Your task to perform on an android device: allow cookies in the chrome app Image 0: 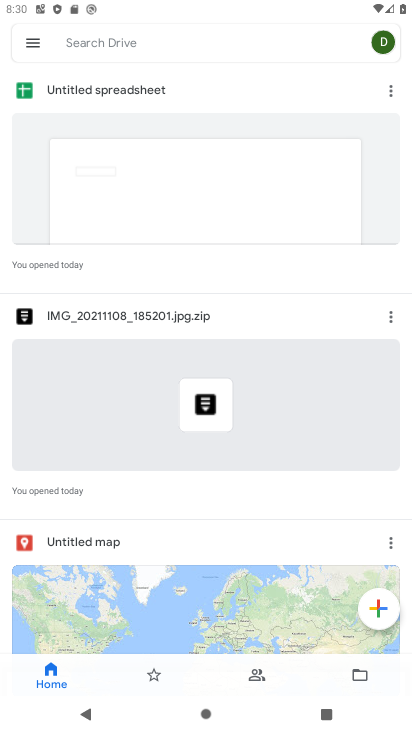
Step 0: press home button
Your task to perform on an android device: allow cookies in the chrome app Image 1: 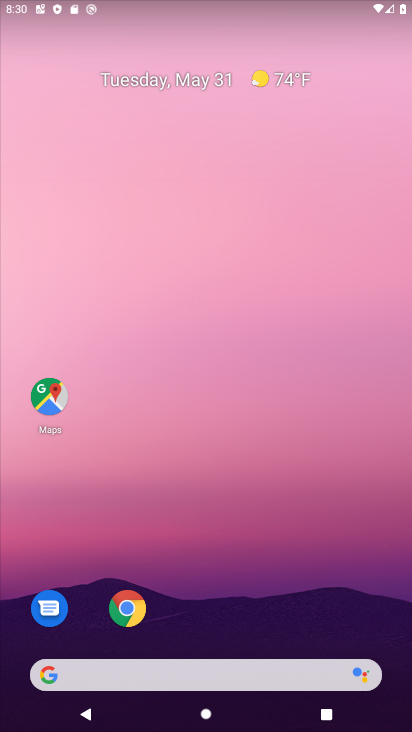
Step 1: click (114, 598)
Your task to perform on an android device: allow cookies in the chrome app Image 2: 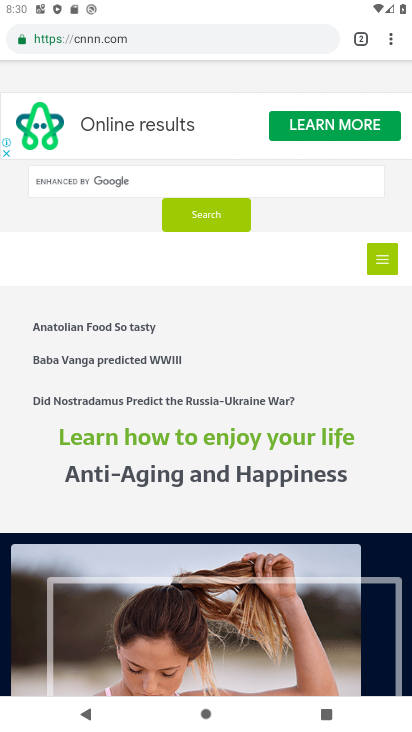
Step 2: click (393, 47)
Your task to perform on an android device: allow cookies in the chrome app Image 3: 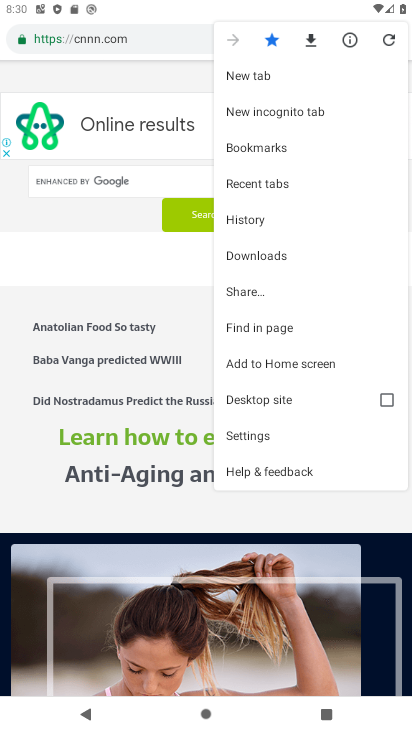
Step 3: click (243, 421)
Your task to perform on an android device: allow cookies in the chrome app Image 4: 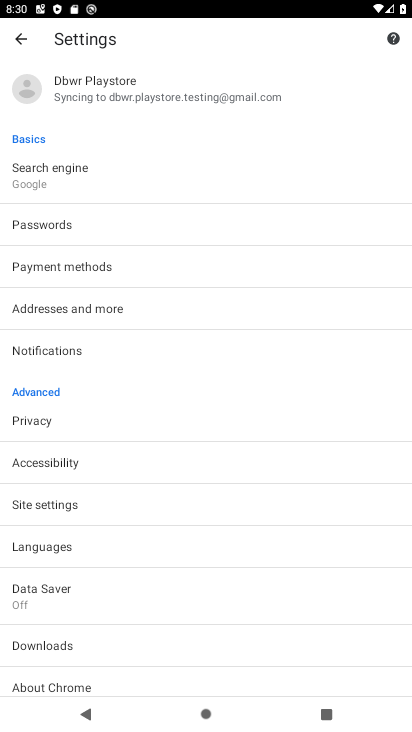
Step 4: click (48, 513)
Your task to perform on an android device: allow cookies in the chrome app Image 5: 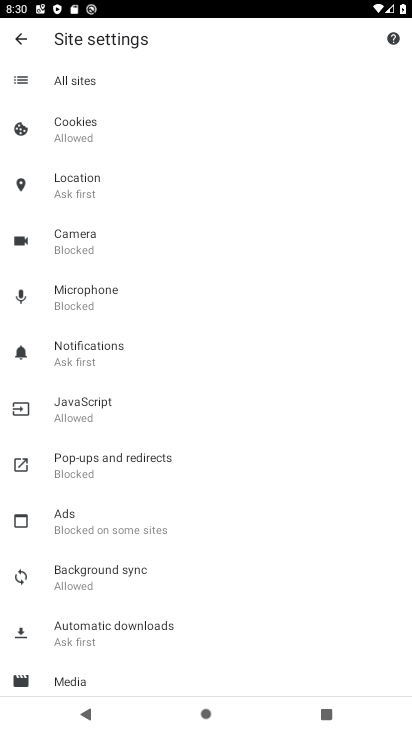
Step 5: click (87, 137)
Your task to perform on an android device: allow cookies in the chrome app Image 6: 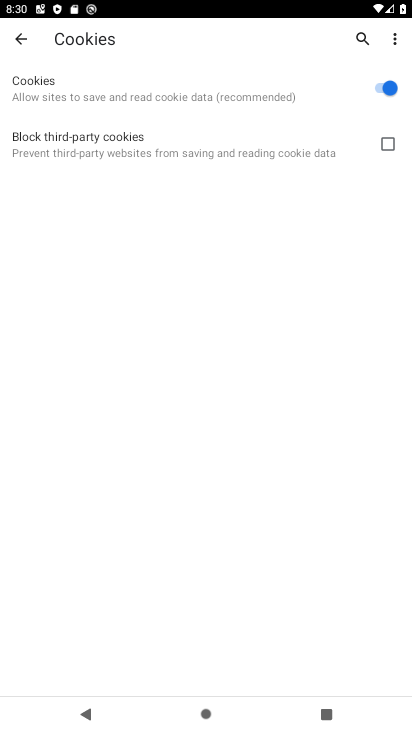
Step 6: task complete